Your task to perform on an android device: When is my next meeting? Image 0: 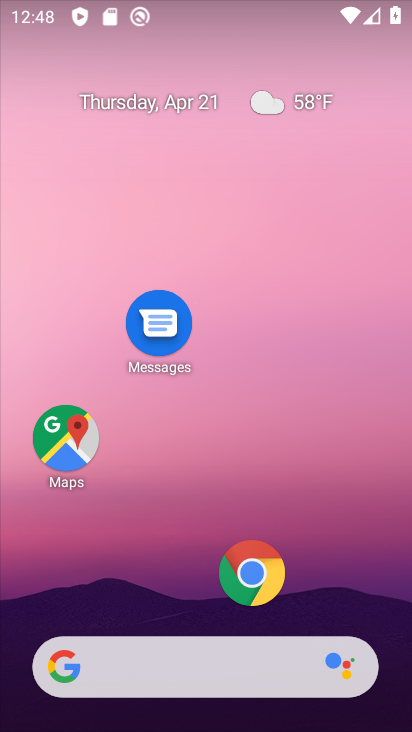
Step 0: drag from (181, 527) to (302, 17)
Your task to perform on an android device: When is my next meeting? Image 1: 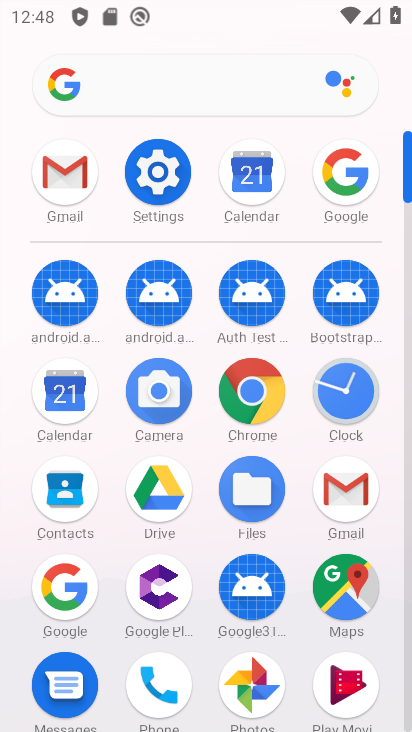
Step 1: click (70, 397)
Your task to perform on an android device: When is my next meeting? Image 2: 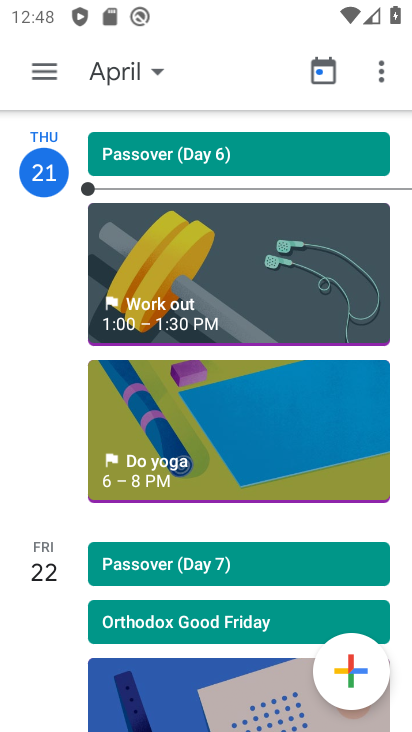
Step 2: click (152, 79)
Your task to perform on an android device: When is my next meeting? Image 3: 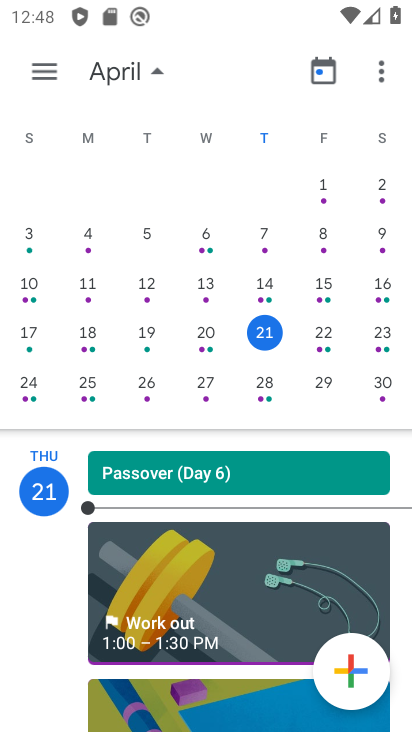
Step 3: click (322, 333)
Your task to perform on an android device: When is my next meeting? Image 4: 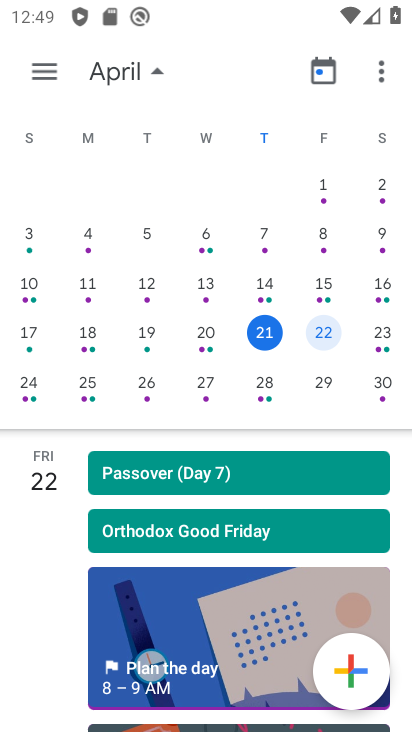
Step 4: task complete